Your task to perform on an android device: snooze an email in the gmail app Image 0: 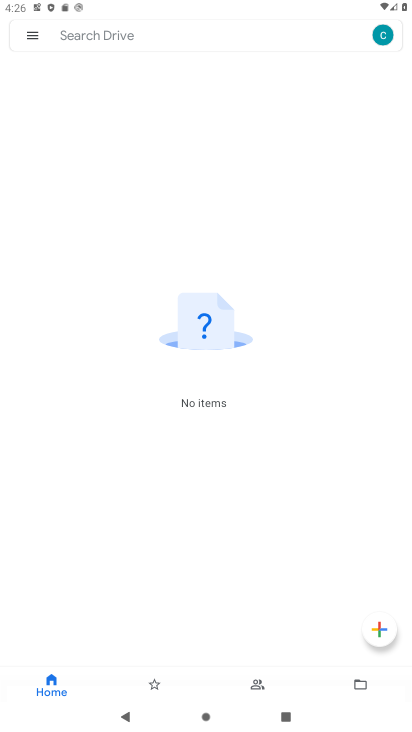
Step 0: press home button
Your task to perform on an android device: snooze an email in the gmail app Image 1: 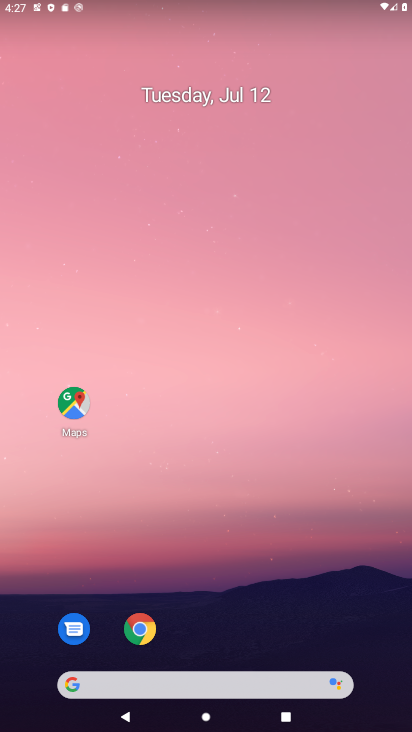
Step 1: drag from (266, 641) to (297, 75)
Your task to perform on an android device: snooze an email in the gmail app Image 2: 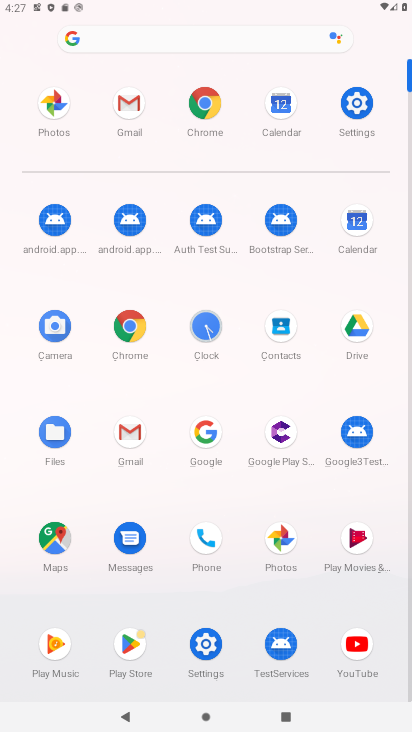
Step 2: click (123, 105)
Your task to perform on an android device: snooze an email in the gmail app Image 3: 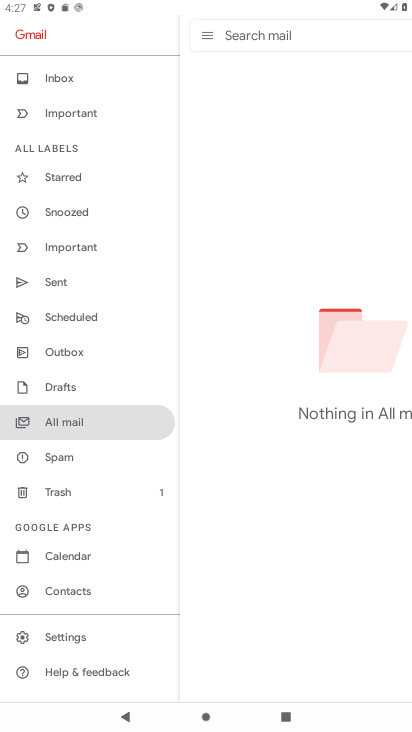
Step 3: click (62, 424)
Your task to perform on an android device: snooze an email in the gmail app Image 4: 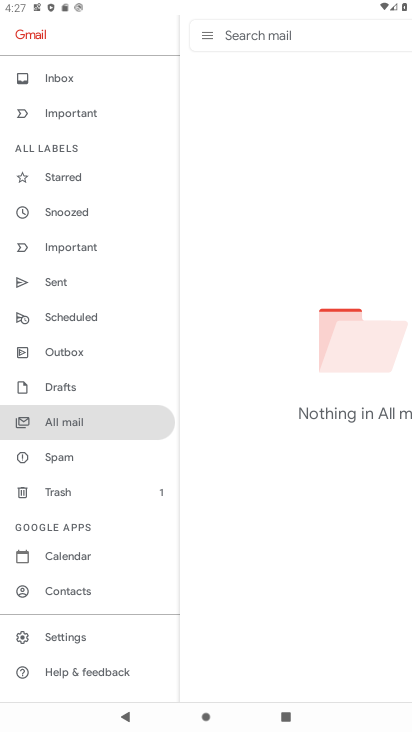
Step 4: task complete